Your task to perform on an android device: Go to battery settings Image 0: 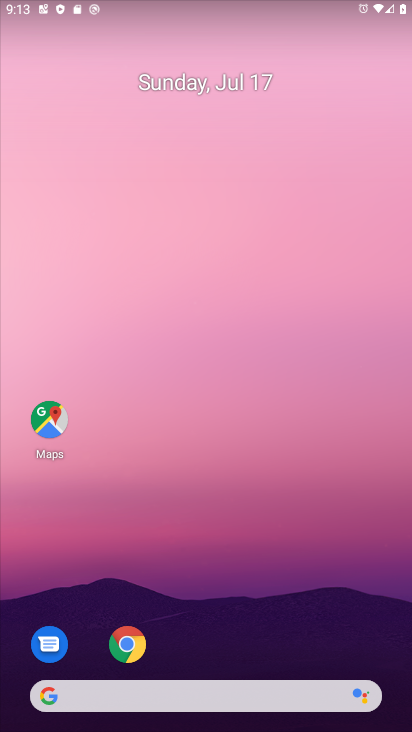
Step 0: drag from (241, 670) to (219, 6)
Your task to perform on an android device: Go to battery settings Image 1: 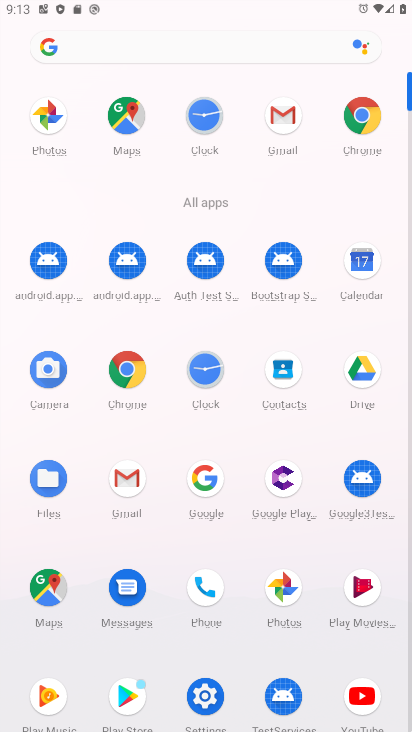
Step 1: click (204, 687)
Your task to perform on an android device: Go to battery settings Image 2: 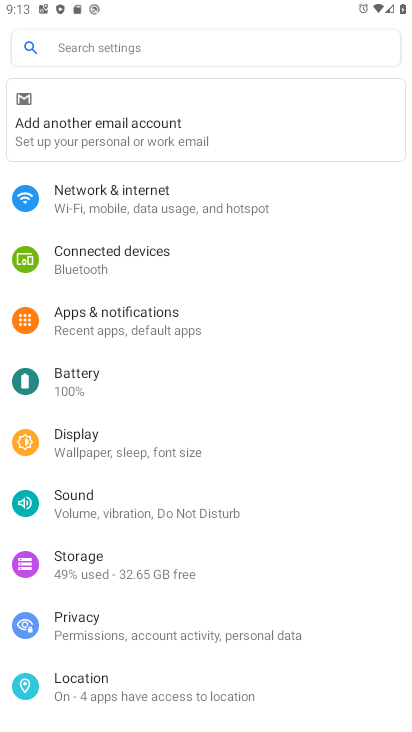
Step 2: click (69, 384)
Your task to perform on an android device: Go to battery settings Image 3: 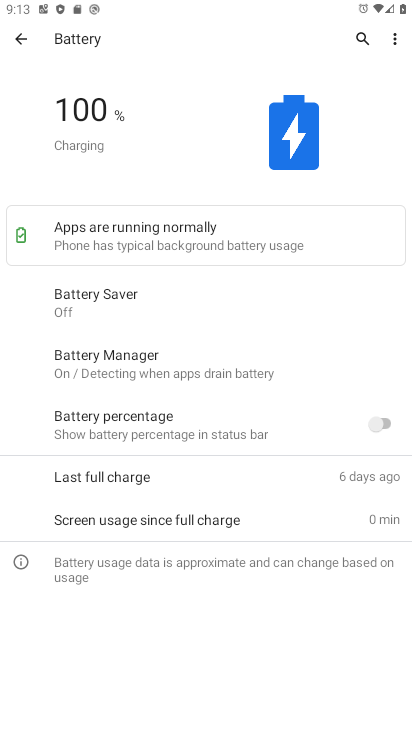
Step 3: task complete